Your task to perform on an android device: Search for Mexican restaurants on Maps Image 0: 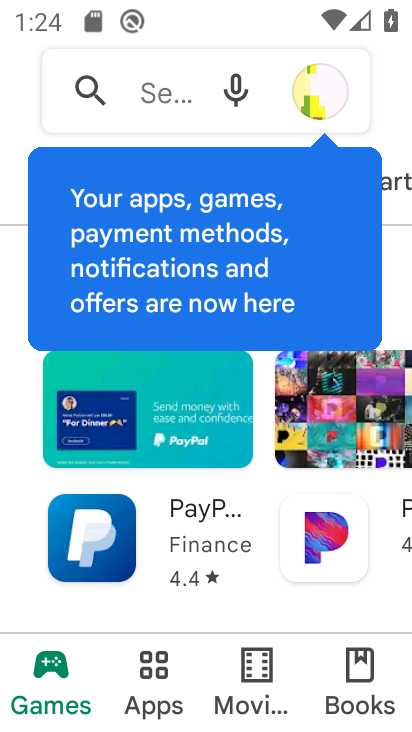
Step 0: press home button
Your task to perform on an android device: Search for Mexican restaurants on Maps Image 1: 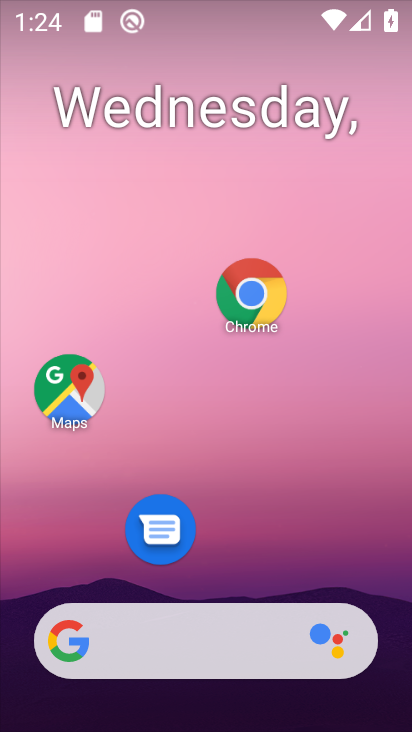
Step 1: drag from (251, 368) to (280, 133)
Your task to perform on an android device: Search for Mexican restaurants on Maps Image 2: 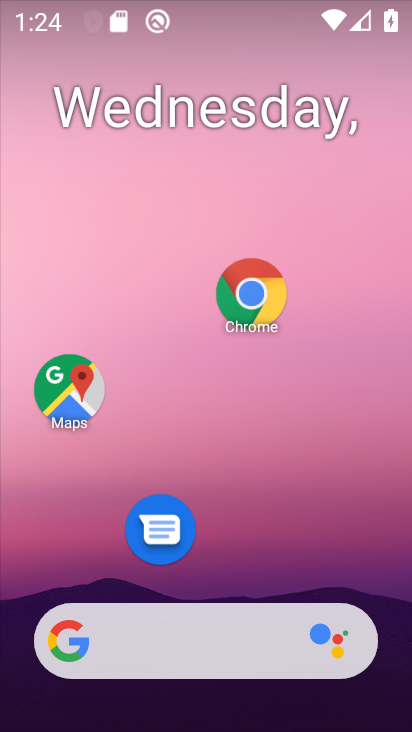
Step 2: drag from (267, 491) to (271, 119)
Your task to perform on an android device: Search for Mexican restaurants on Maps Image 3: 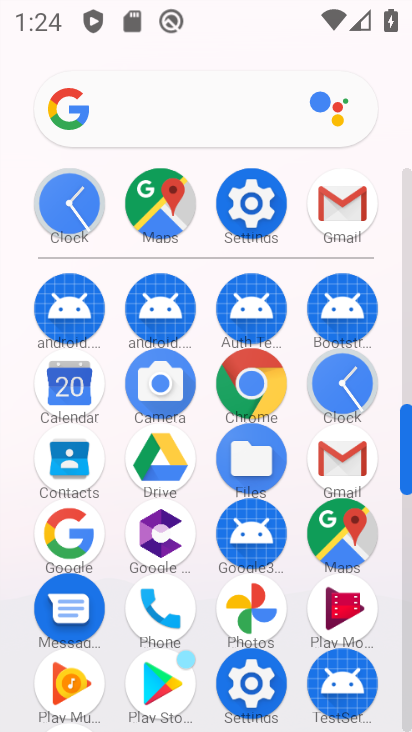
Step 3: click (346, 540)
Your task to perform on an android device: Search for Mexican restaurants on Maps Image 4: 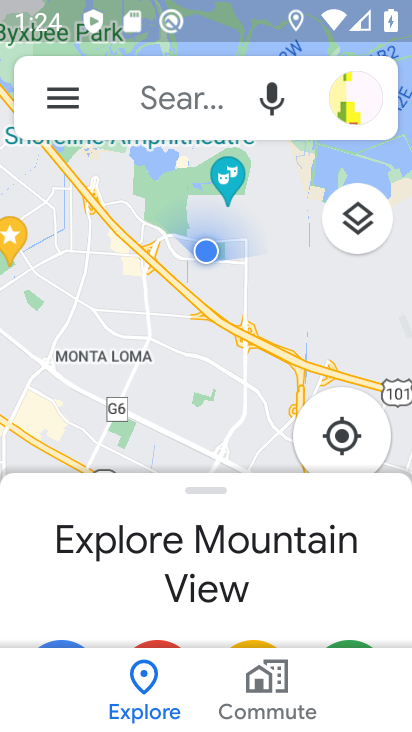
Step 4: click (173, 122)
Your task to perform on an android device: Search for Mexican restaurants on Maps Image 5: 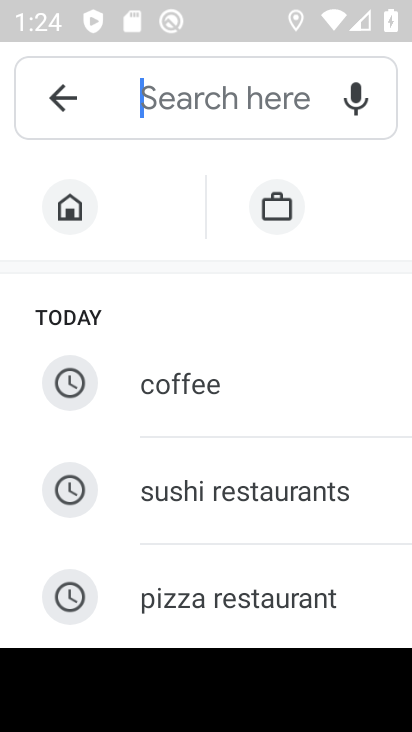
Step 5: drag from (209, 539) to (217, 255)
Your task to perform on an android device: Search for Mexican restaurants on Maps Image 6: 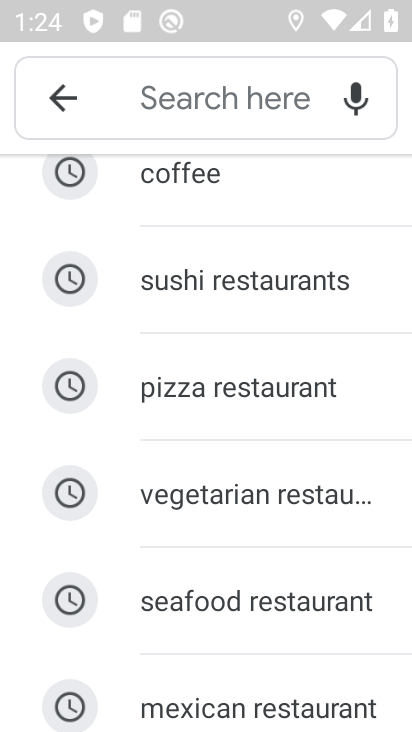
Step 6: click (260, 703)
Your task to perform on an android device: Search for Mexican restaurants on Maps Image 7: 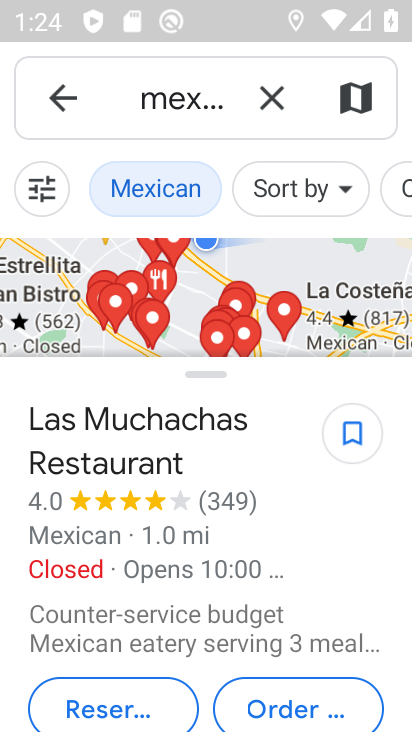
Step 7: task complete